Your task to perform on an android device: change timer sound Image 0: 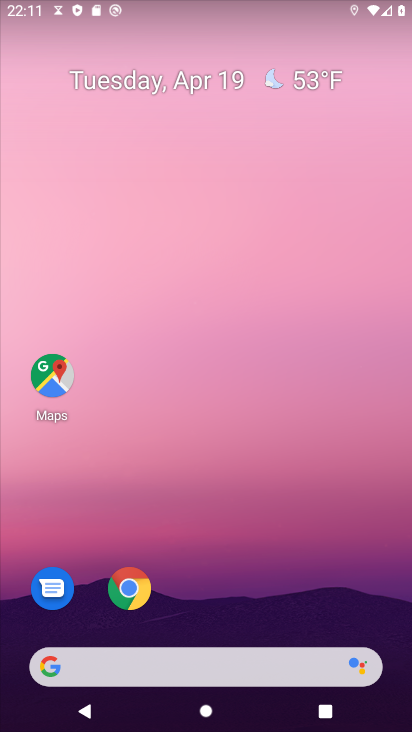
Step 0: drag from (224, 601) to (291, 52)
Your task to perform on an android device: change timer sound Image 1: 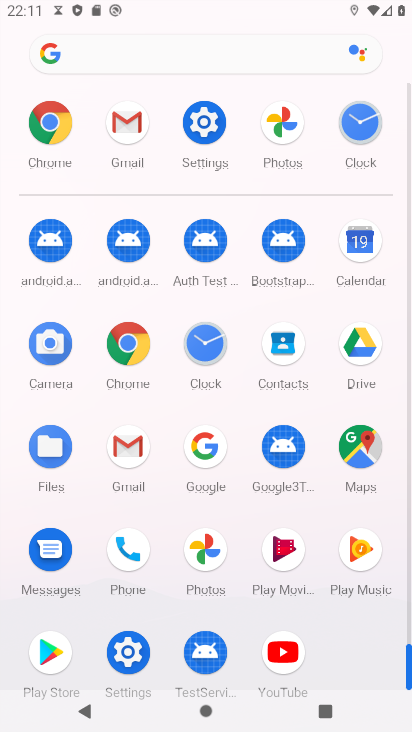
Step 1: click (360, 125)
Your task to perform on an android device: change timer sound Image 2: 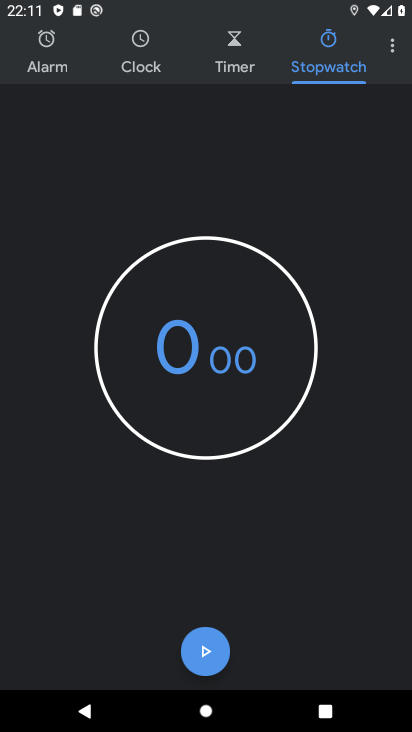
Step 2: click (399, 50)
Your task to perform on an android device: change timer sound Image 3: 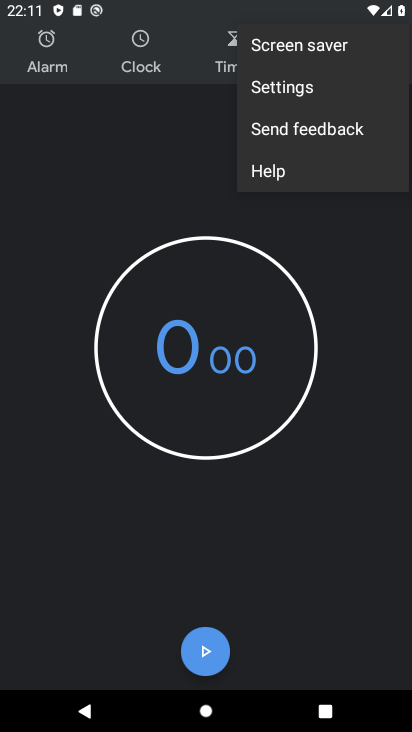
Step 3: click (319, 84)
Your task to perform on an android device: change timer sound Image 4: 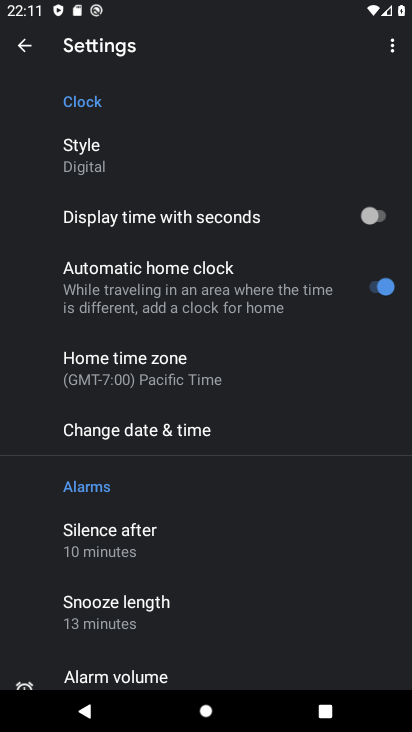
Step 4: drag from (190, 557) to (267, 398)
Your task to perform on an android device: change timer sound Image 5: 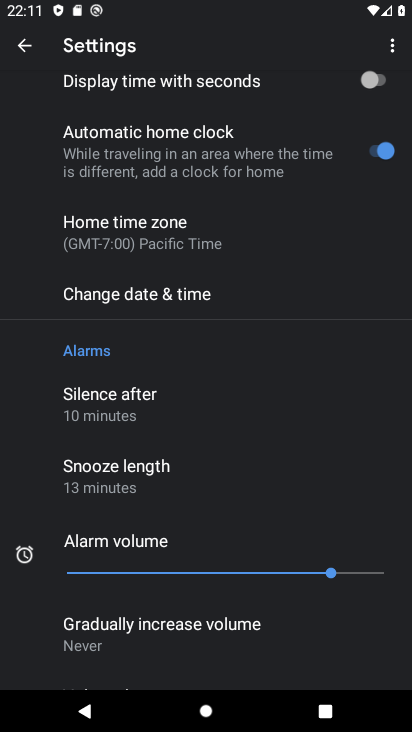
Step 5: drag from (225, 509) to (281, 405)
Your task to perform on an android device: change timer sound Image 6: 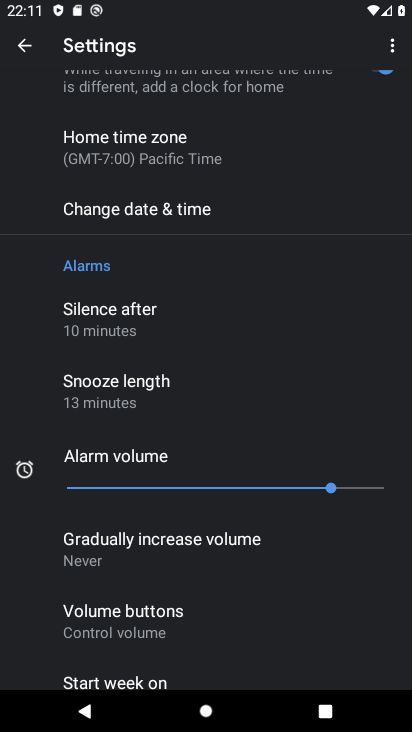
Step 6: drag from (182, 509) to (241, 421)
Your task to perform on an android device: change timer sound Image 7: 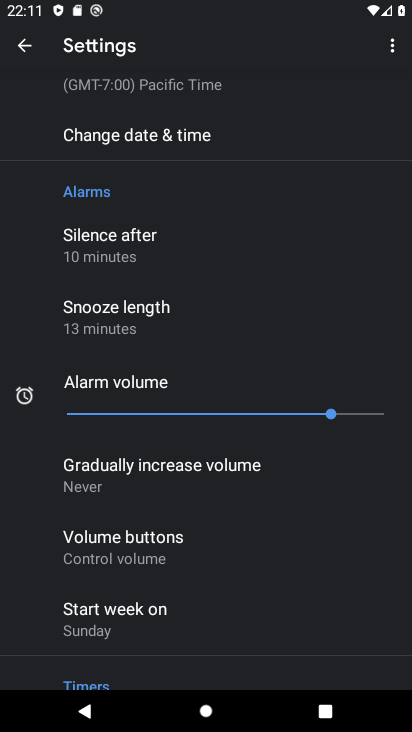
Step 7: drag from (171, 512) to (233, 410)
Your task to perform on an android device: change timer sound Image 8: 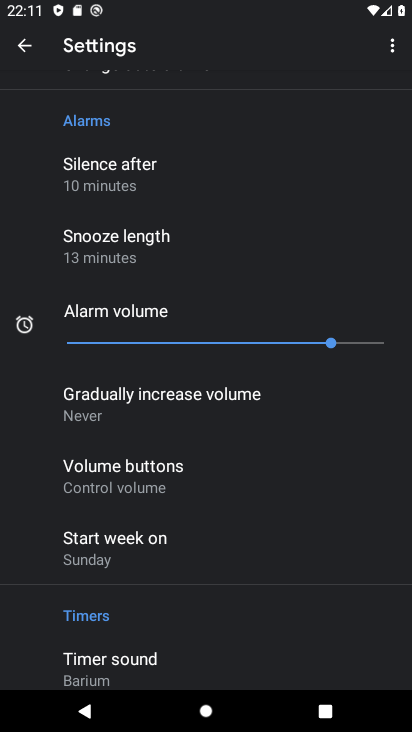
Step 8: drag from (137, 571) to (226, 376)
Your task to perform on an android device: change timer sound Image 9: 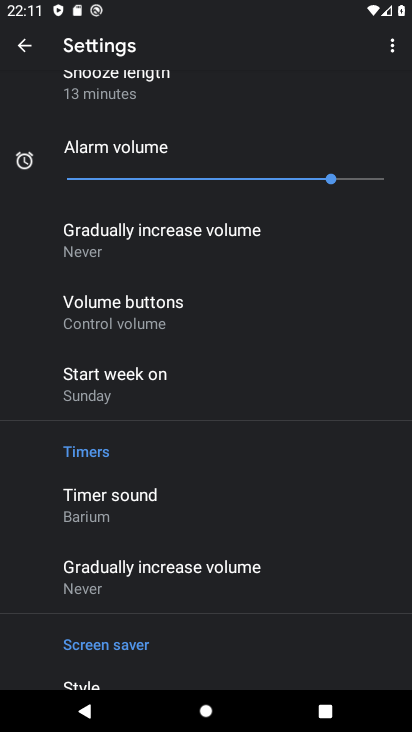
Step 9: drag from (167, 458) to (225, 381)
Your task to perform on an android device: change timer sound Image 10: 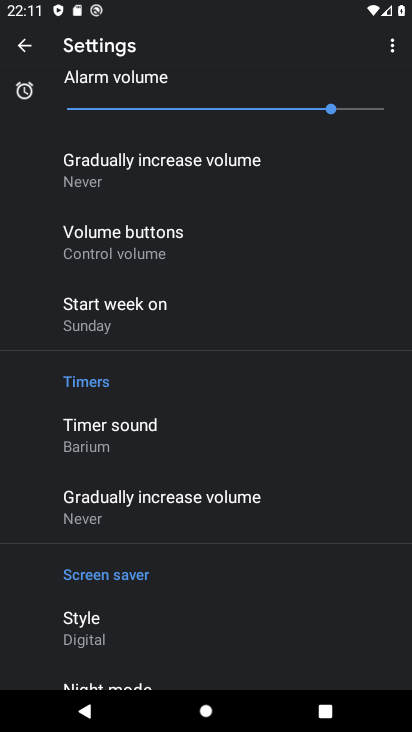
Step 10: click (144, 436)
Your task to perform on an android device: change timer sound Image 11: 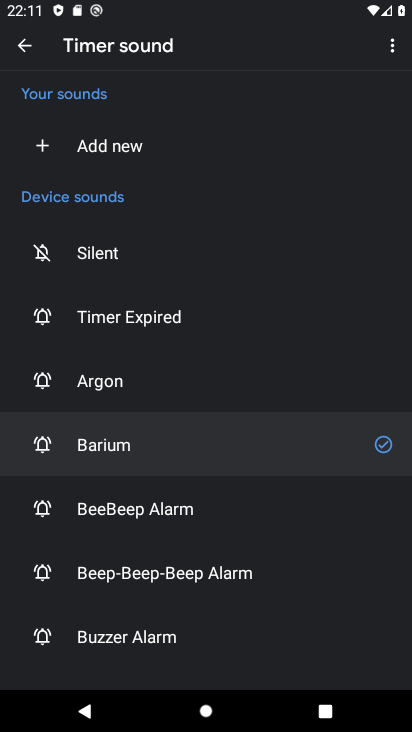
Step 11: drag from (136, 604) to (217, 421)
Your task to perform on an android device: change timer sound Image 12: 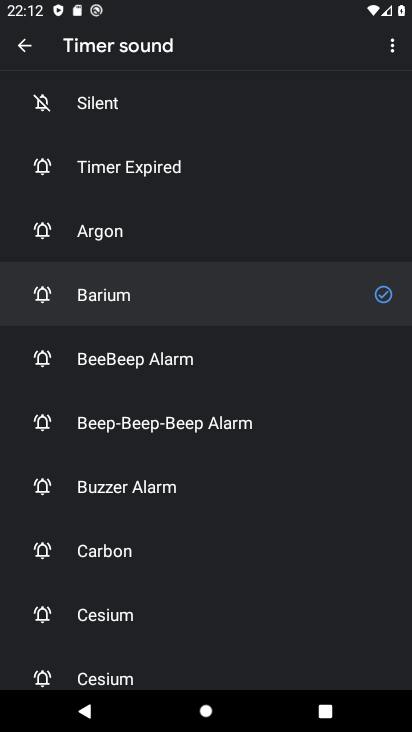
Step 12: click (153, 483)
Your task to perform on an android device: change timer sound Image 13: 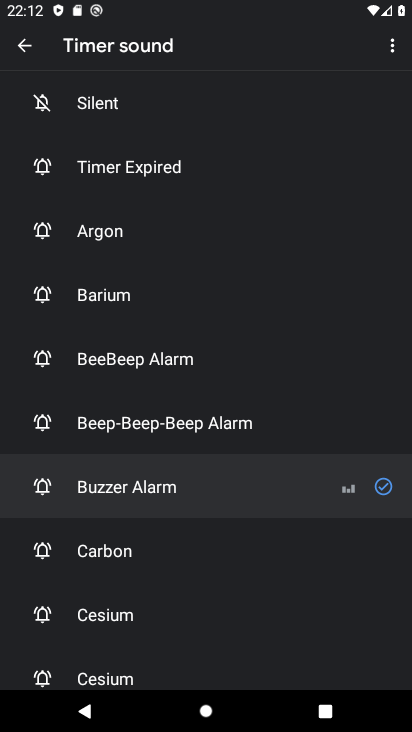
Step 13: task complete